Your task to perform on an android device: Open calendar and show me the fourth week of next month Image 0: 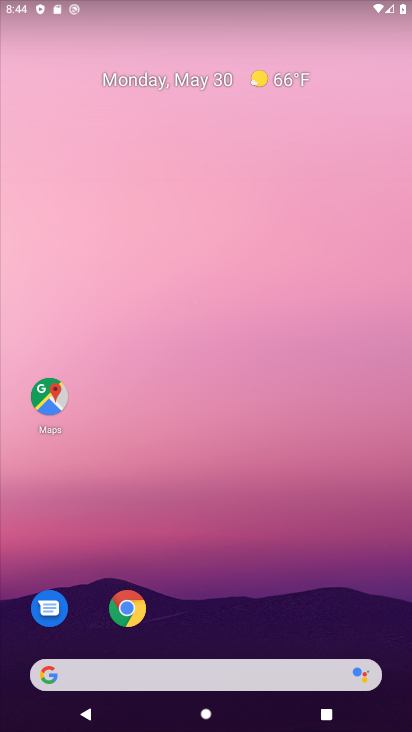
Step 0: drag from (227, 717) to (227, 68)
Your task to perform on an android device: Open calendar and show me the fourth week of next month Image 1: 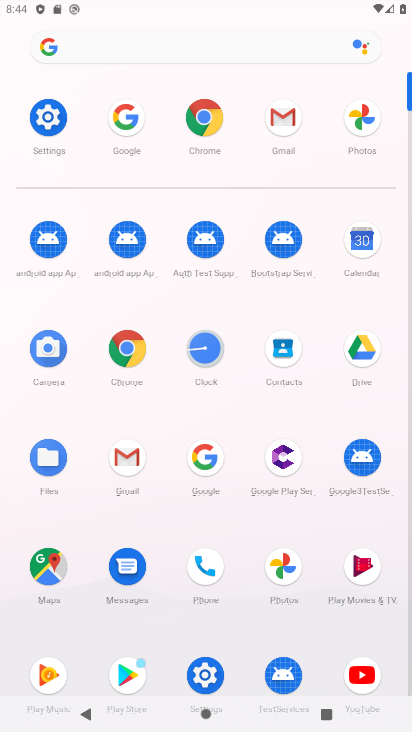
Step 1: click (361, 237)
Your task to perform on an android device: Open calendar and show me the fourth week of next month Image 2: 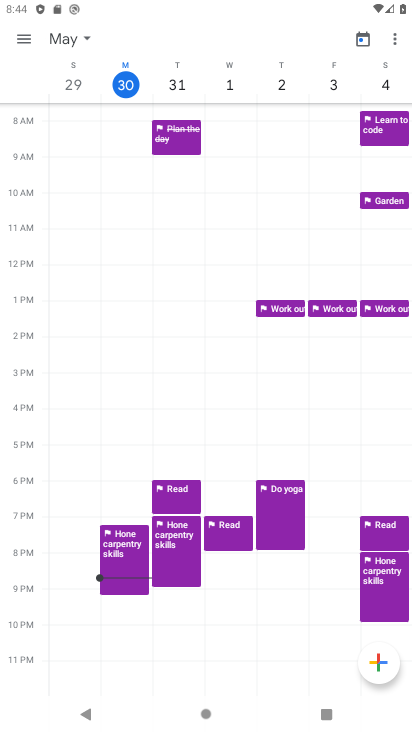
Step 2: click (86, 36)
Your task to perform on an android device: Open calendar and show me the fourth week of next month Image 3: 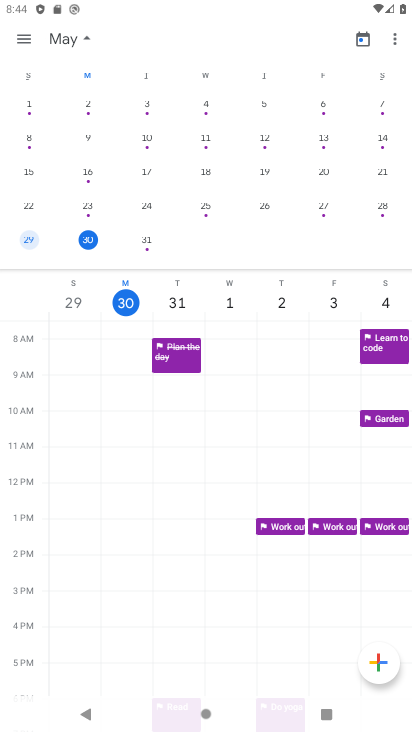
Step 3: drag from (384, 190) to (1, 170)
Your task to perform on an android device: Open calendar and show me the fourth week of next month Image 4: 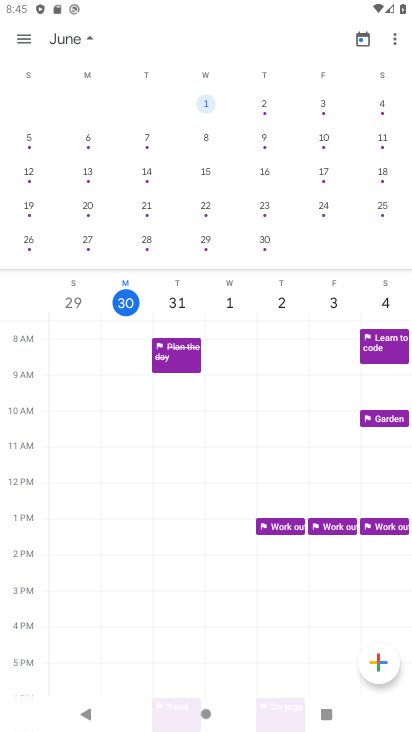
Step 4: click (87, 233)
Your task to perform on an android device: Open calendar and show me the fourth week of next month Image 5: 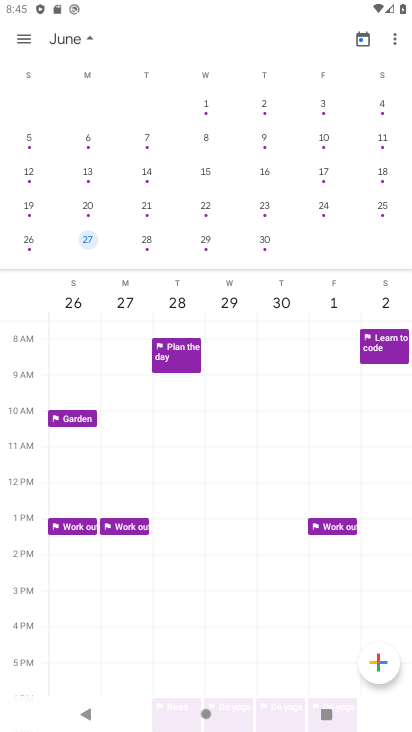
Step 5: click (28, 36)
Your task to perform on an android device: Open calendar and show me the fourth week of next month Image 6: 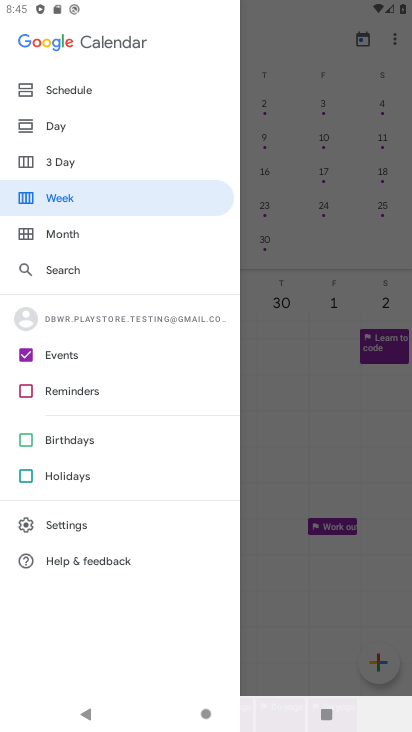
Step 6: click (67, 198)
Your task to perform on an android device: Open calendar and show me the fourth week of next month Image 7: 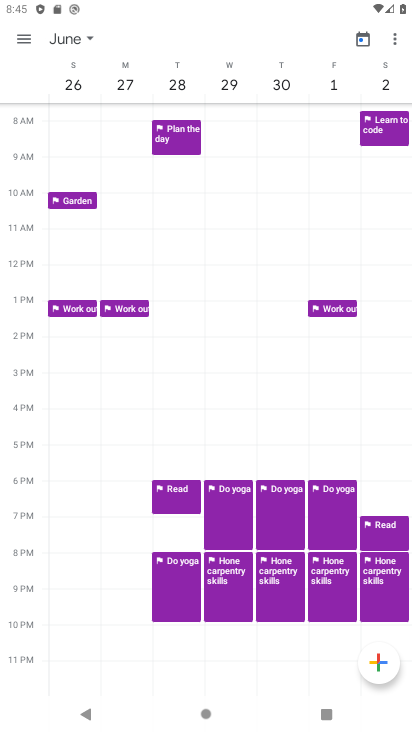
Step 7: task complete